Your task to perform on an android device: toggle javascript in the chrome app Image 0: 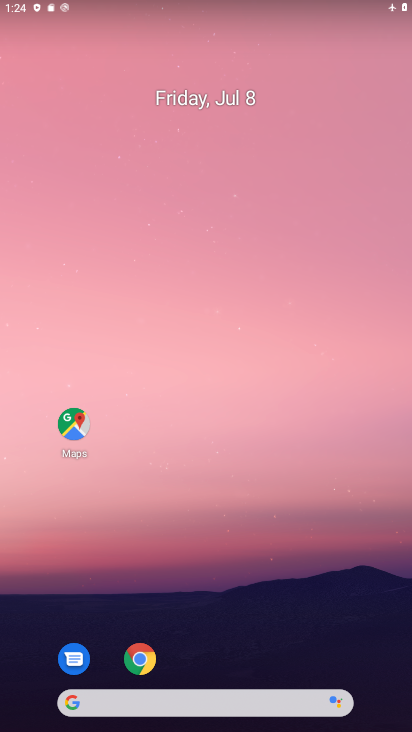
Step 0: drag from (288, 606) to (342, 200)
Your task to perform on an android device: toggle javascript in the chrome app Image 1: 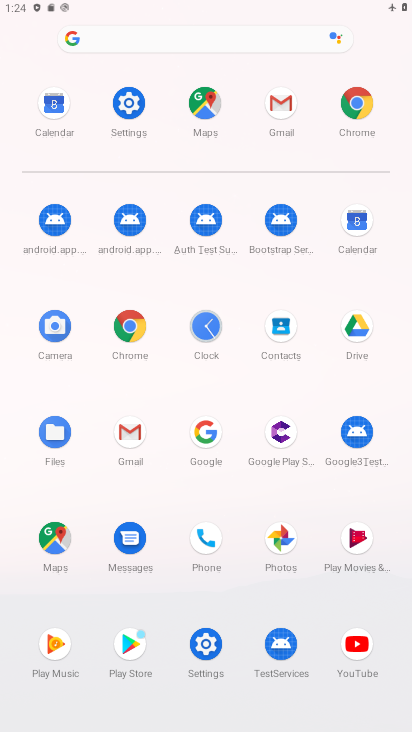
Step 1: click (121, 331)
Your task to perform on an android device: toggle javascript in the chrome app Image 2: 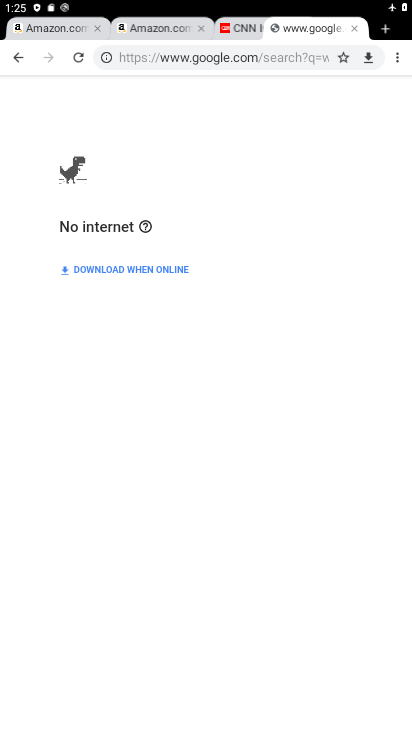
Step 2: click (396, 61)
Your task to perform on an android device: toggle javascript in the chrome app Image 3: 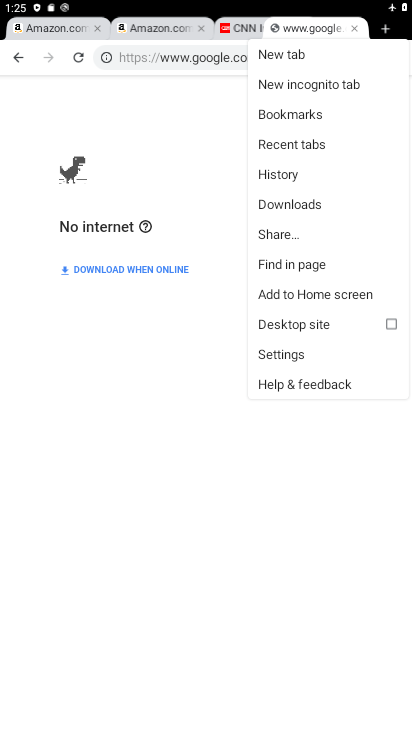
Step 3: click (308, 361)
Your task to perform on an android device: toggle javascript in the chrome app Image 4: 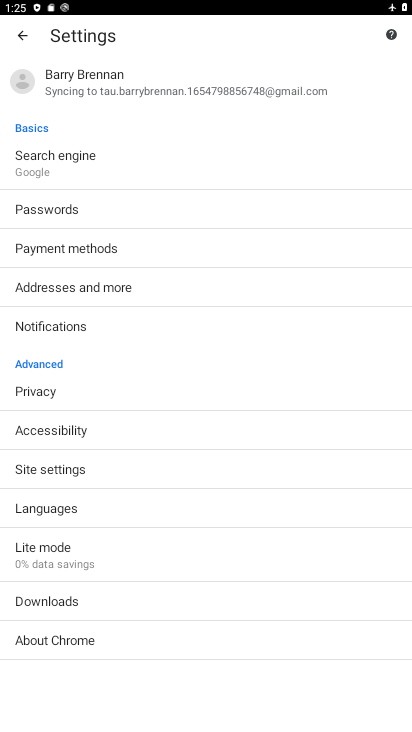
Step 4: click (120, 471)
Your task to perform on an android device: toggle javascript in the chrome app Image 5: 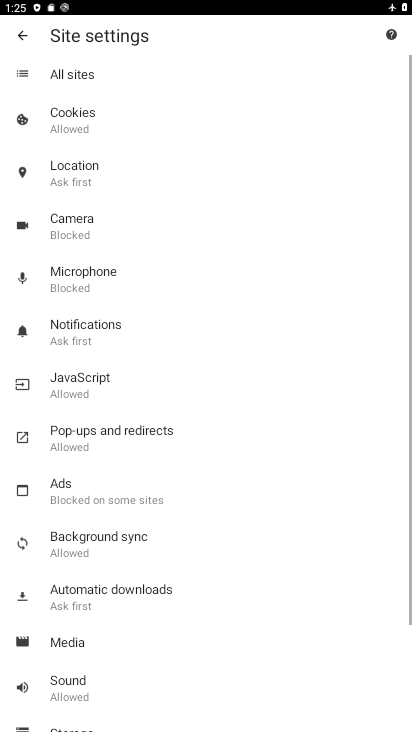
Step 5: click (167, 396)
Your task to perform on an android device: toggle javascript in the chrome app Image 6: 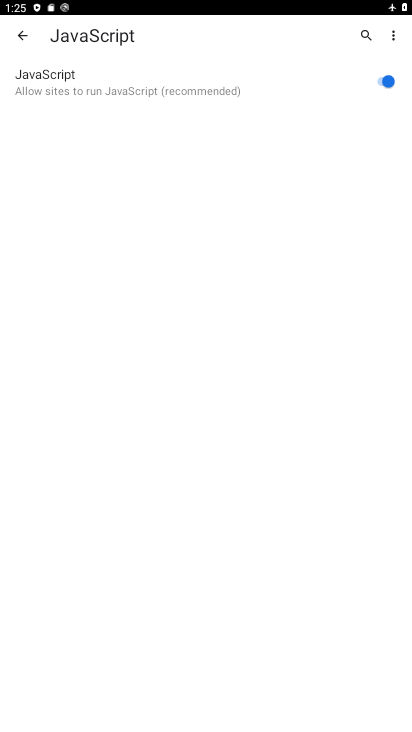
Step 6: click (387, 85)
Your task to perform on an android device: toggle javascript in the chrome app Image 7: 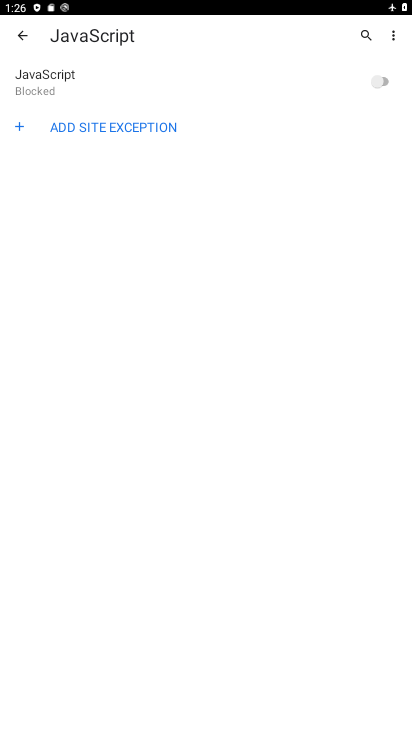
Step 7: task complete